Your task to perform on an android device: Do I have any events today? Image 0: 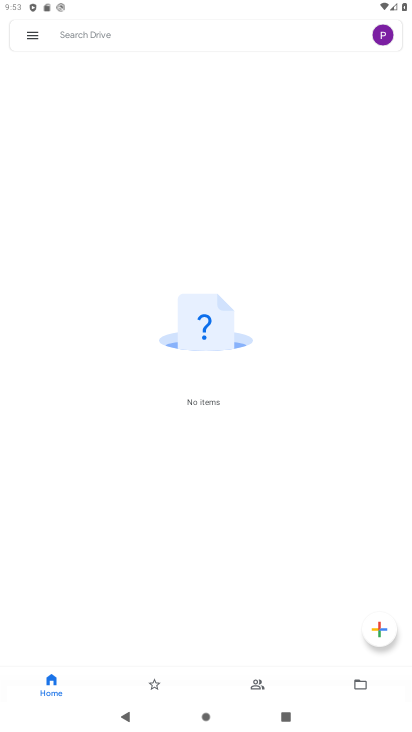
Step 0: press home button
Your task to perform on an android device: Do I have any events today? Image 1: 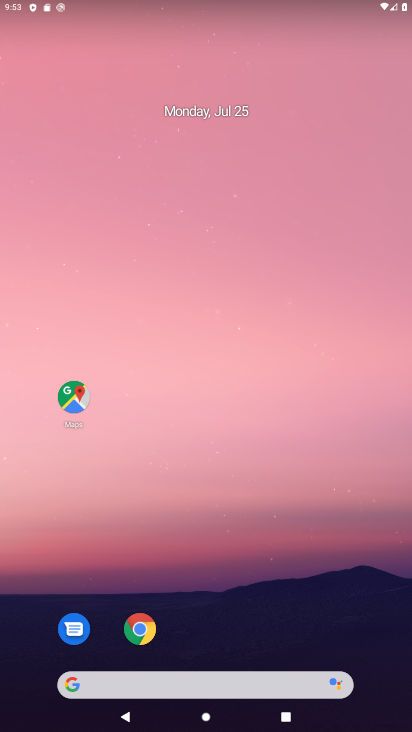
Step 1: drag from (260, 579) to (243, 50)
Your task to perform on an android device: Do I have any events today? Image 2: 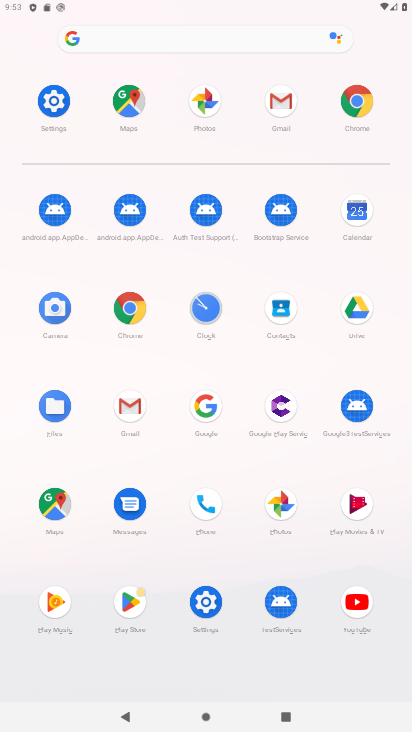
Step 2: click (360, 202)
Your task to perform on an android device: Do I have any events today? Image 3: 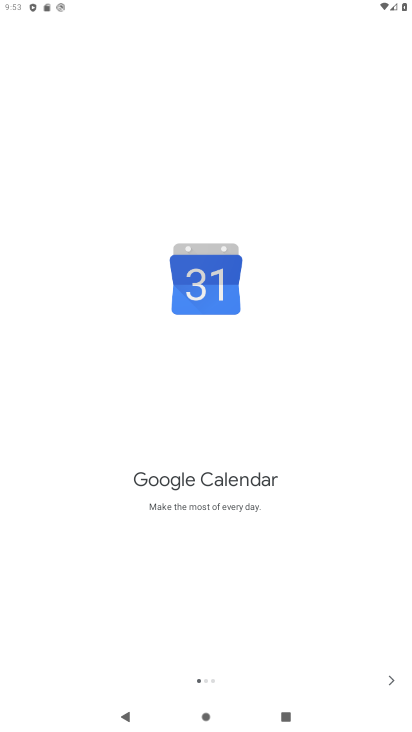
Step 3: click (393, 678)
Your task to perform on an android device: Do I have any events today? Image 4: 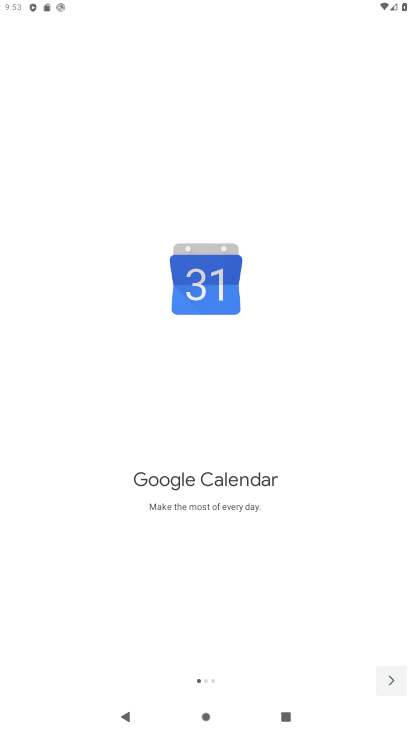
Step 4: click (393, 677)
Your task to perform on an android device: Do I have any events today? Image 5: 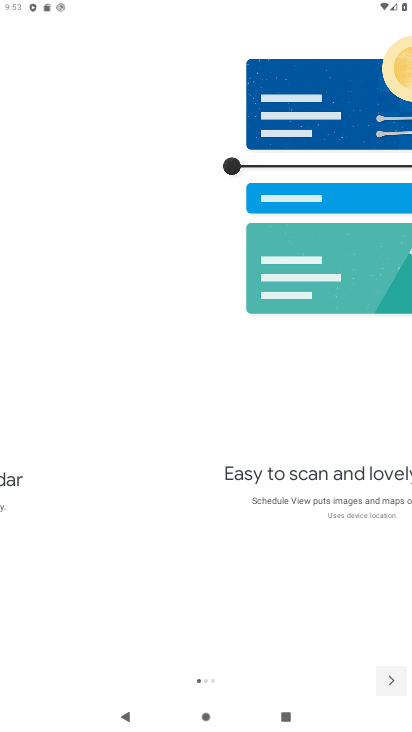
Step 5: click (393, 677)
Your task to perform on an android device: Do I have any events today? Image 6: 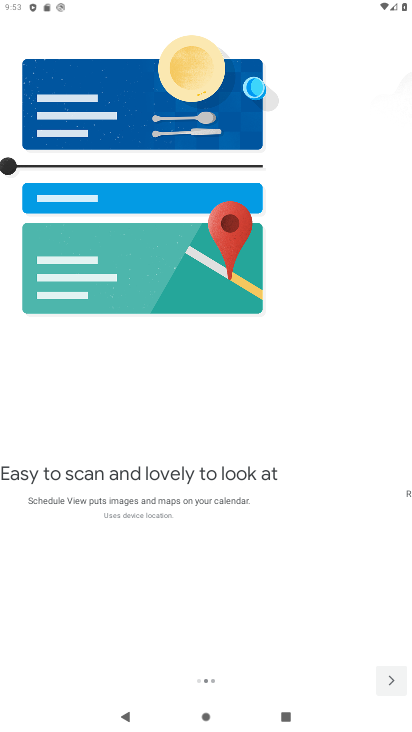
Step 6: click (393, 677)
Your task to perform on an android device: Do I have any events today? Image 7: 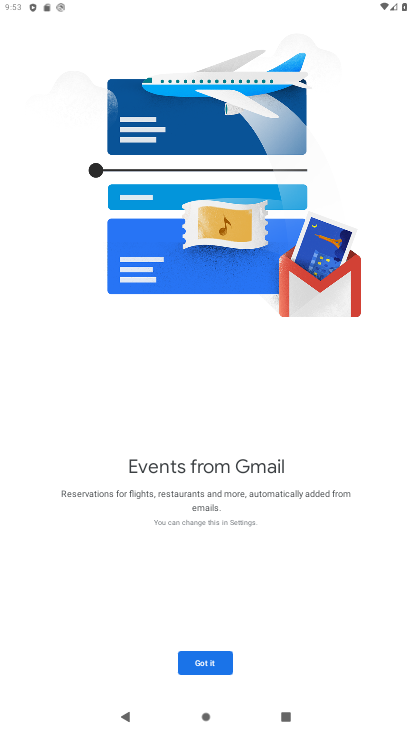
Step 7: click (393, 677)
Your task to perform on an android device: Do I have any events today? Image 8: 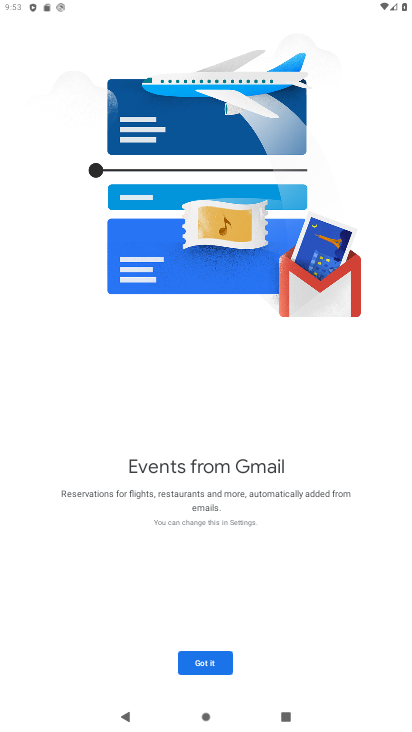
Step 8: drag from (393, 677) to (199, 658)
Your task to perform on an android device: Do I have any events today? Image 9: 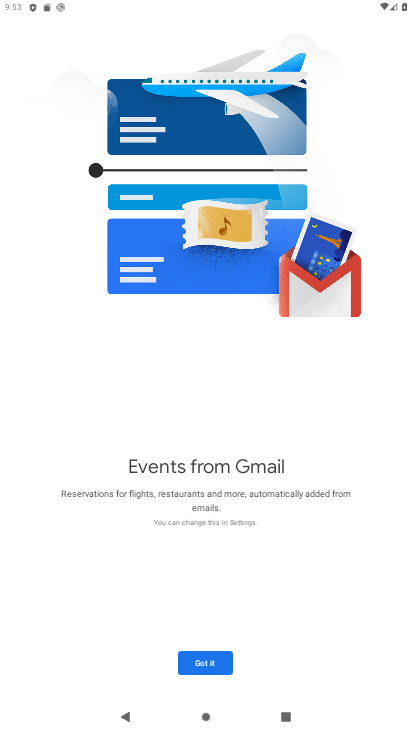
Step 9: click (211, 668)
Your task to perform on an android device: Do I have any events today? Image 10: 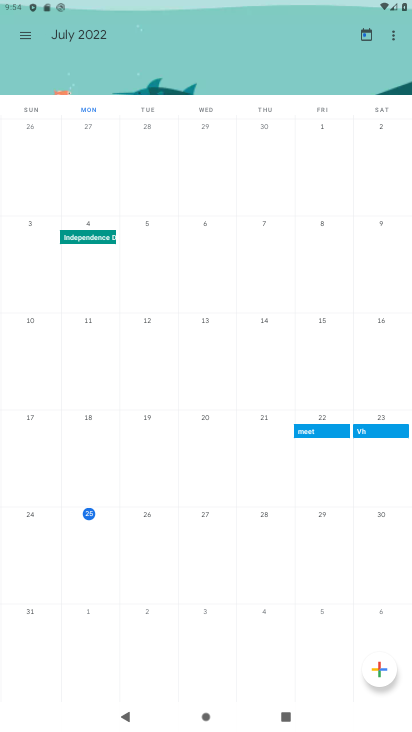
Step 10: click (91, 517)
Your task to perform on an android device: Do I have any events today? Image 11: 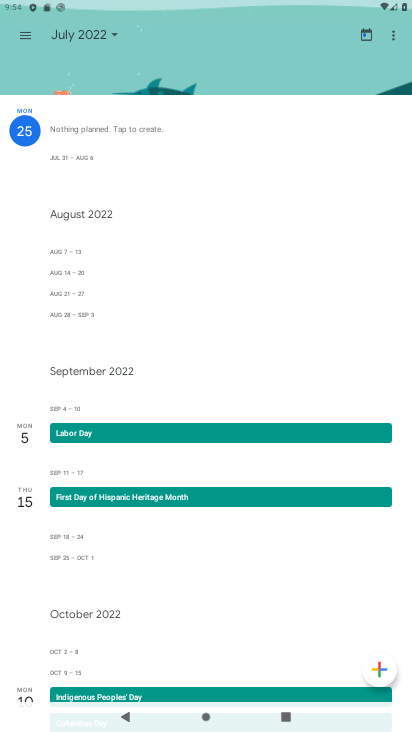
Step 11: task complete